Your task to perform on an android device: See recent photos Image 0: 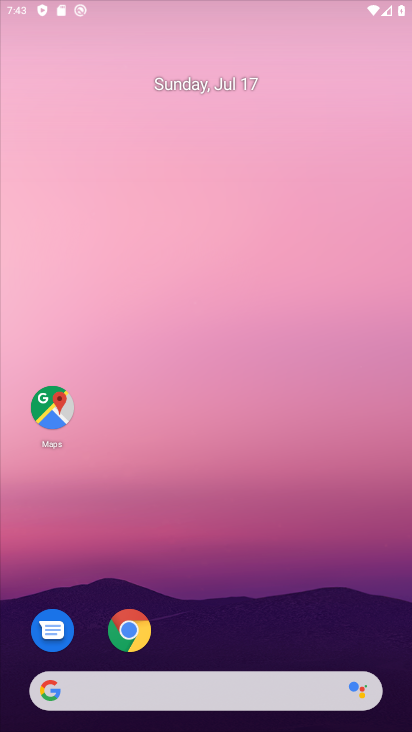
Step 0: drag from (288, 726) to (288, 78)
Your task to perform on an android device: See recent photos Image 1: 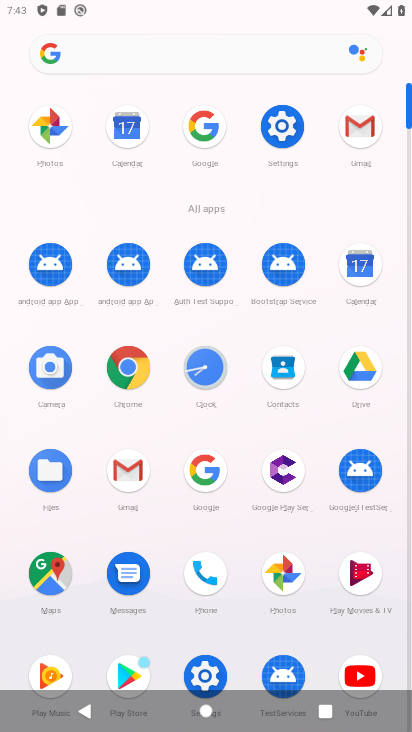
Step 1: click (277, 574)
Your task to perform on an android device: See recent photos Image 2: 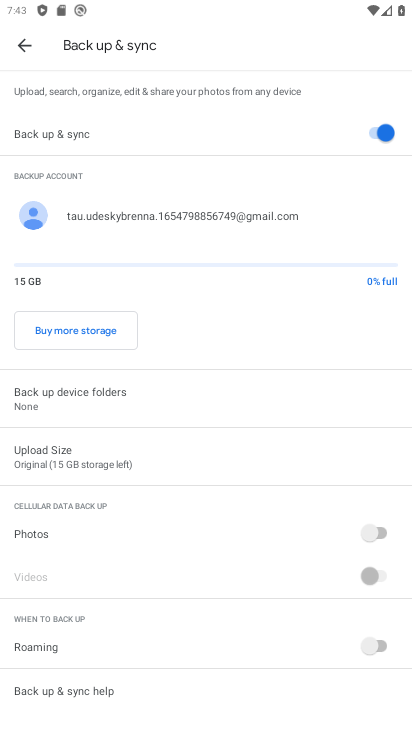
Step 2: click (8, 33)
Your task to perform on an android device: See recent photos Image 3: 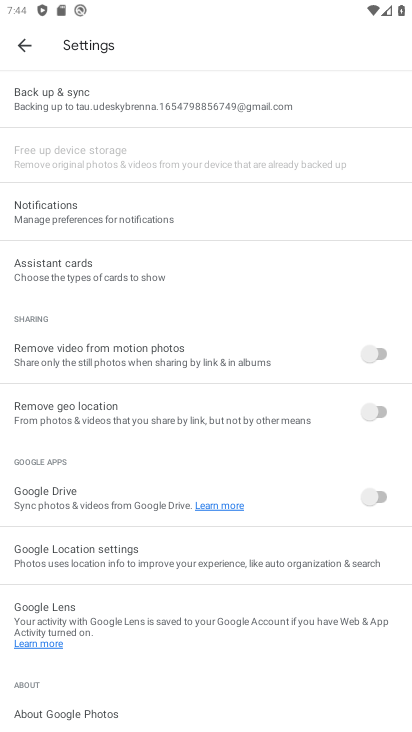
Step 3: click (22, 49)
Your task to perform on an android device: See recent photos Image 4: 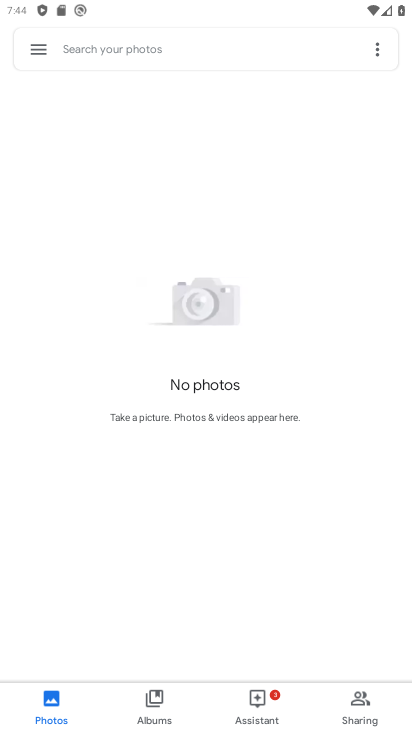
Step 4: click (262, 694)
Your task to perform on an android device: See recent photos Image 5: 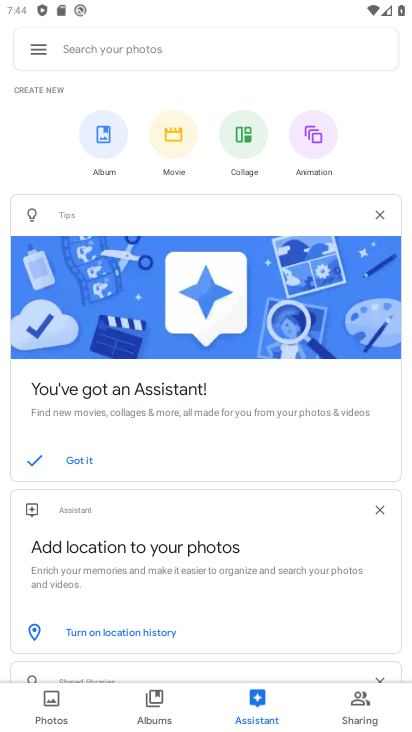
Step 5: task complete